Your task to perform on an android device: change timer sound Image 0: 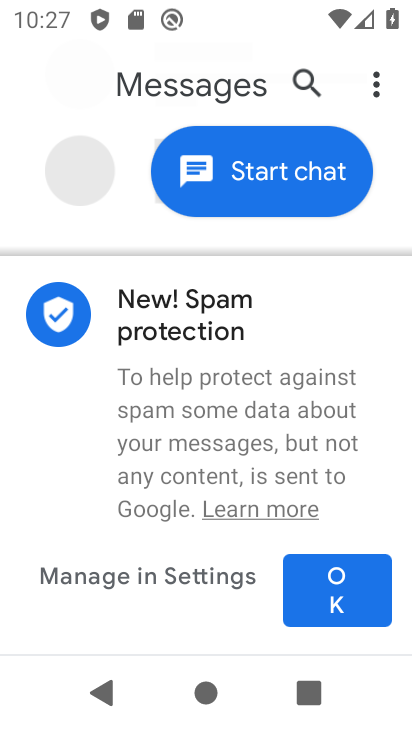
Step 0: press home button
Your task to perform on an android device: change timer sound Image 1: 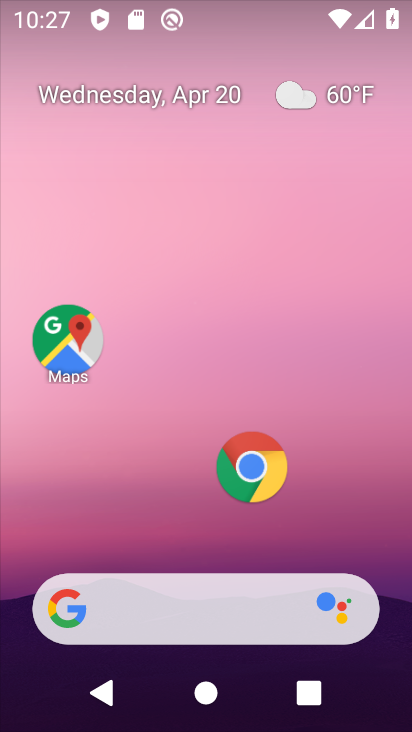
Step 1: drag from (325, 299) to (317, 67)
Your task to perform on an android device: change timer sound Image 2: 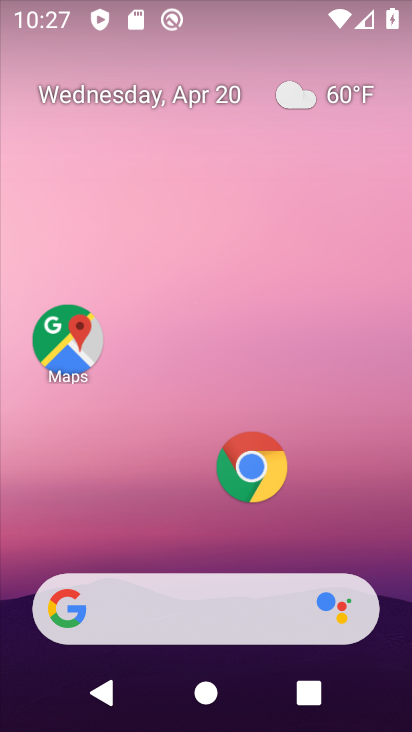
Step 2: drag from (297, 530) to (338, 79)
Your task to perform on an android device: change timer sound Image 3: 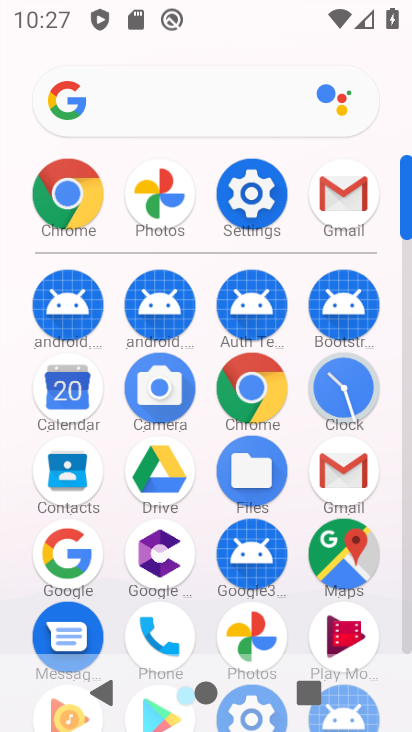
Step 3: click (345, 396)
Your task to perform on an android device: change timer sound Image 4: 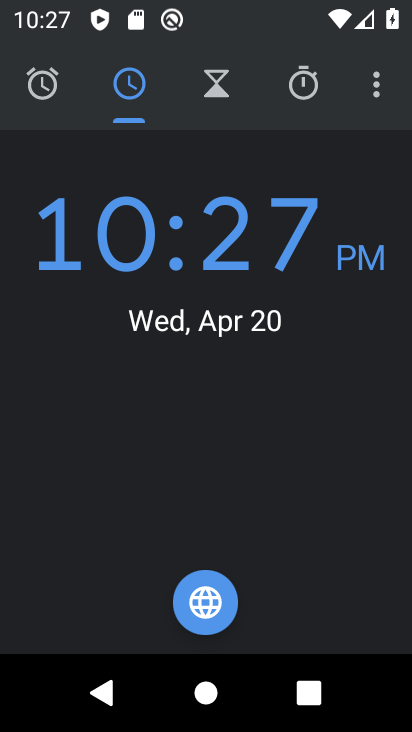
Step 4: click (383, 77)
Your task to perform on an android device: change timer sound Image 5: 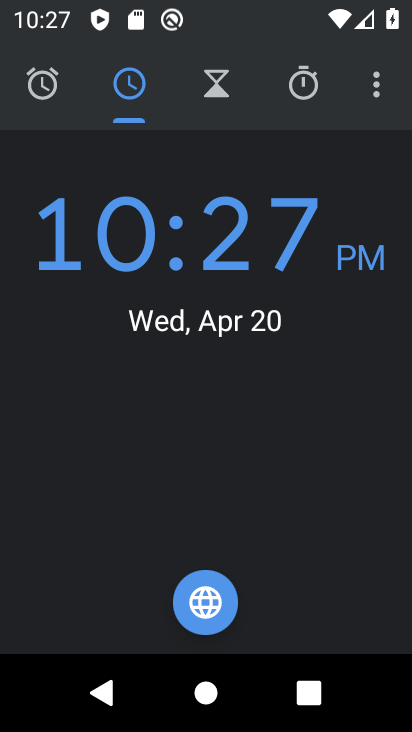
Step 5: click (381, 84)
Your task to perform on an android device: change timer sound Image 6: 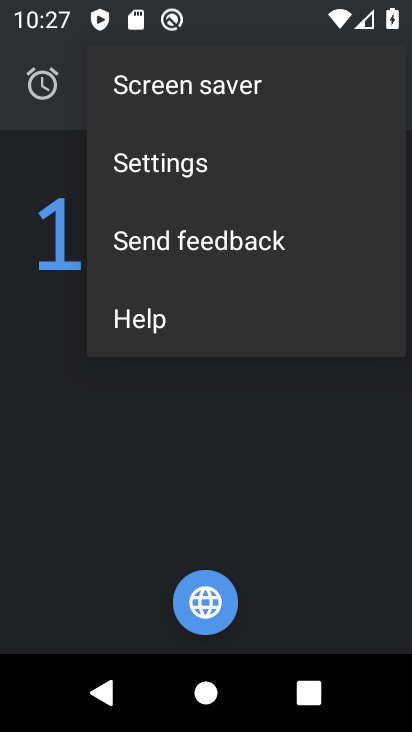
Step 6: click (205, 157)
Your task to perform on an android device: change timer sound Image 7: 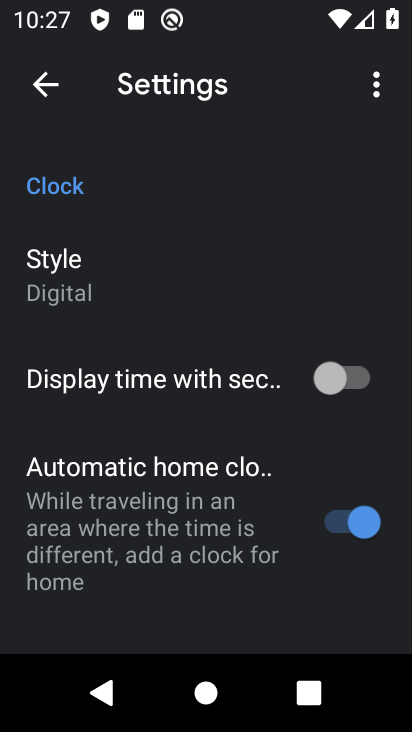
Step 7: drag from (122, 488) to (140, 328)
Your task to perform on an android device: change timer sound Image 8: 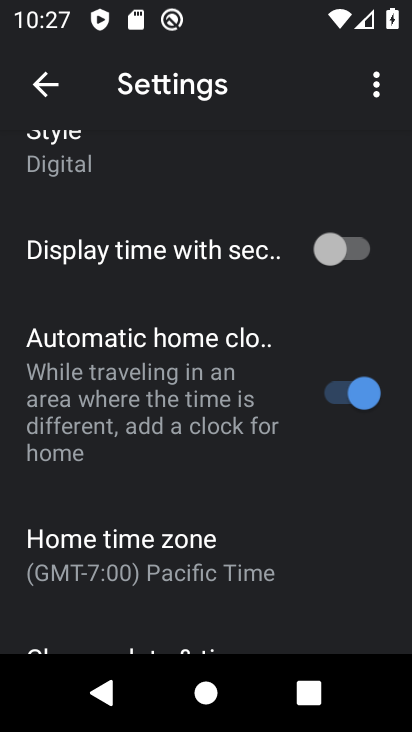
Step 8: drag from (132, 423) to (151, 322)
Your task to perform on an android device: change timer sound Image 9: 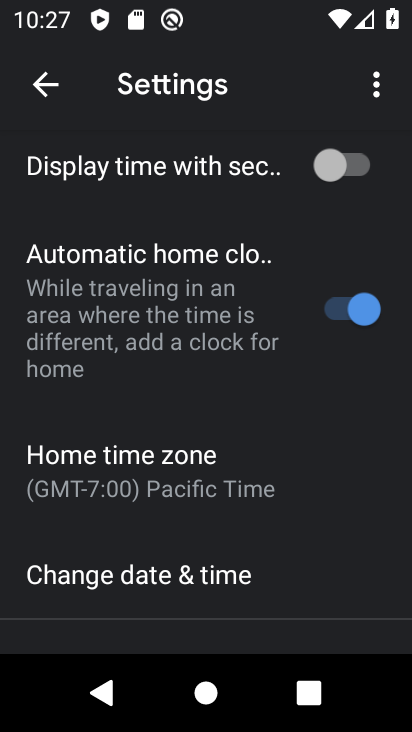
Step 9: drag from (133, 445) to (164, 354)
Your task to perform on an android device: change timer sound Image 10: 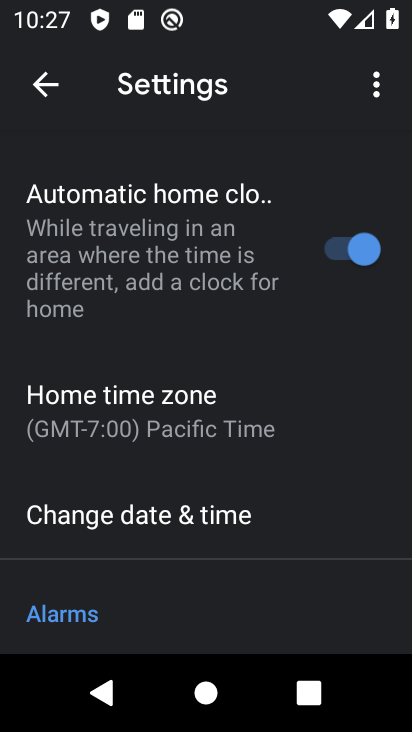
Step 10: drag from (174, 433) to (197, 337)
Your task to perform on an android device: change timer sound Image 11: 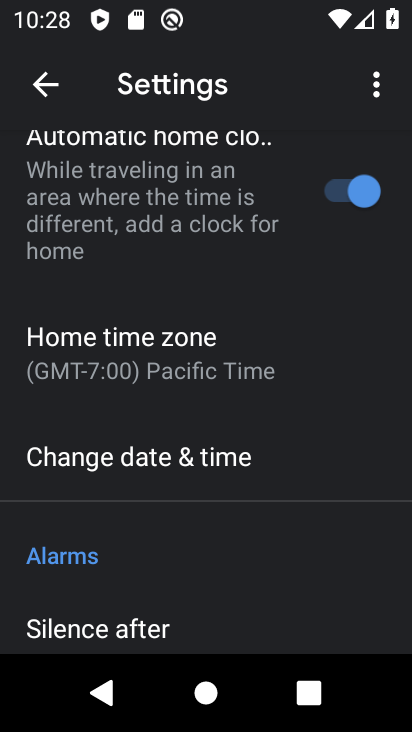
Step 11: drag from (190, 502) to (191, 392)
Your task to perform on an android device: change timer sound Image 12: 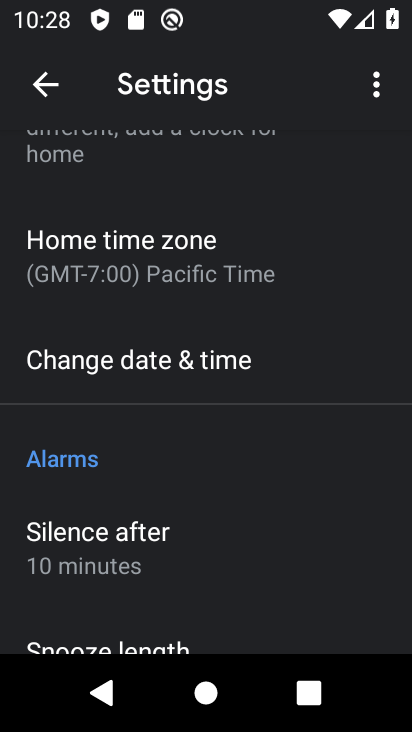
Step 12: drag from (186, 489) to (205, 369)
Your task to perform on an android device: change timer sound Image 13: 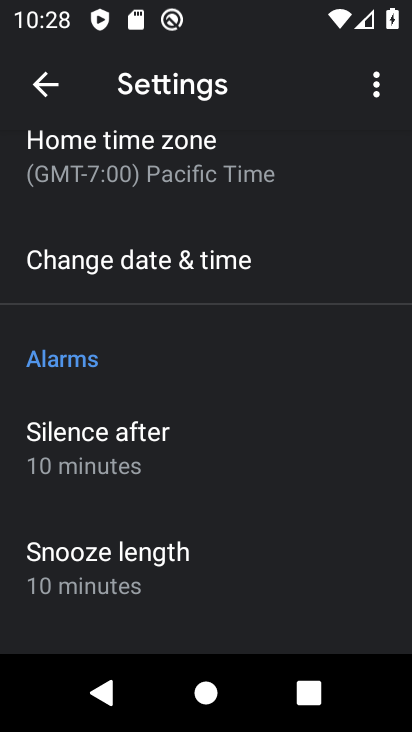
Step 13: drag from (211, 484) to (217, 380)
Your task to perform on an android device: change timer sound Image 14: 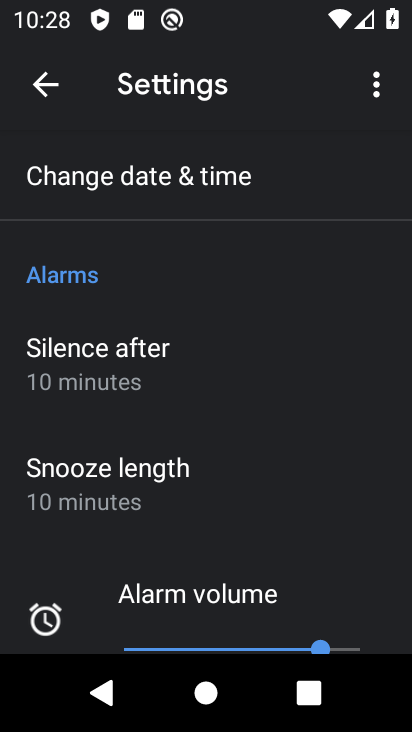
Step 14: drag from (213, 469) to (208, 391)
Your task to perform on an android device: change timer sound Image 15: 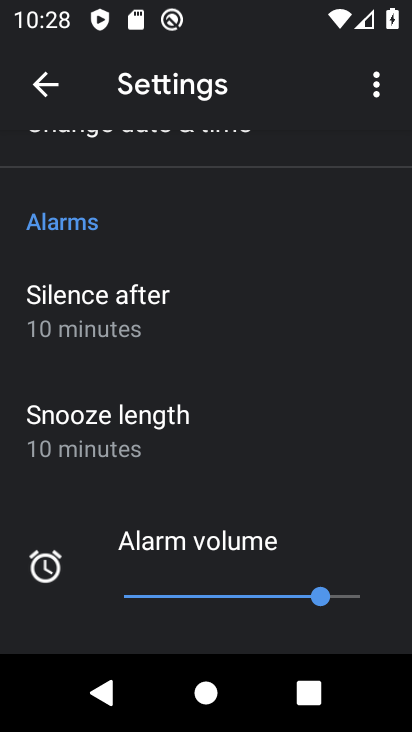
Step 15: drag from (182, 464) to (202, 371)
Your task to perform on an android device: change timer sound Image 16: 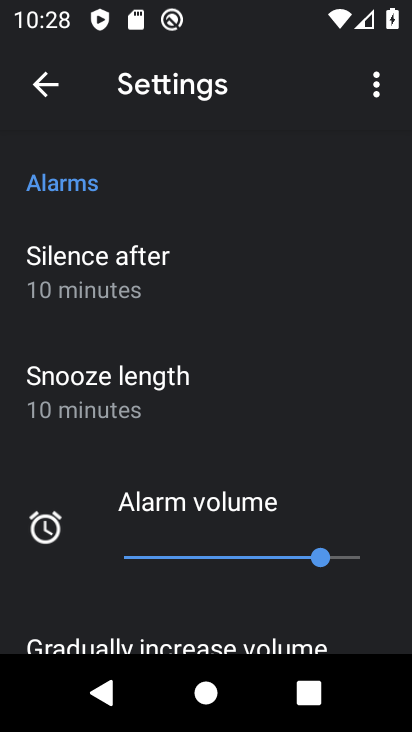
Step 16: drag from (173, 440) to (198, 355)
Your task to perform on an android device: change timer sound Image 17: 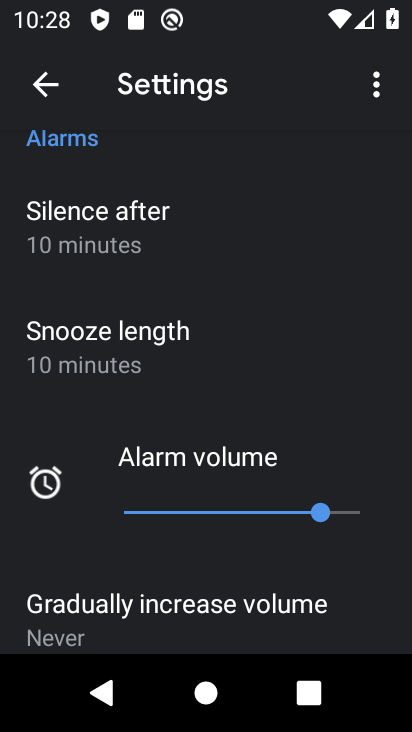
Step 17: drag from (213, 412) to (240, 328)
Your task to perform on an android device: change timer sound Image 18: 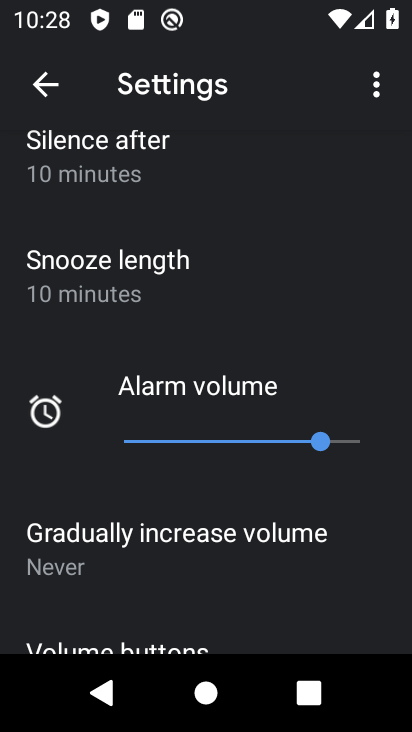
Step 18: drag from (258, 421) to (287, 335)
Your task to perform on an android device: change timer sound Image 19: 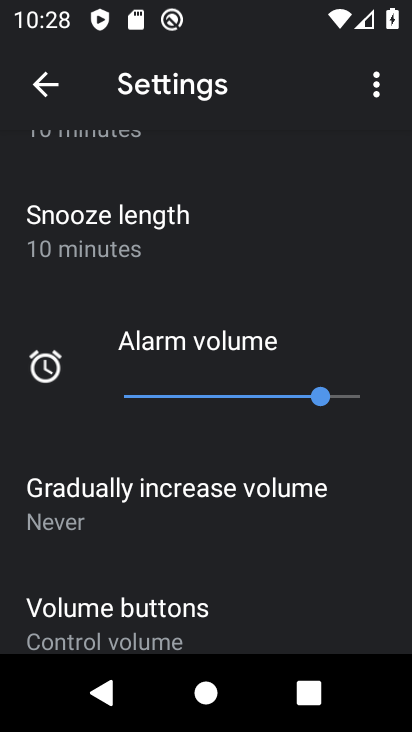
Step 19: drag from (265, 441) to (278, 359)
Your task to perform on an android device: change timer sound Image 20: 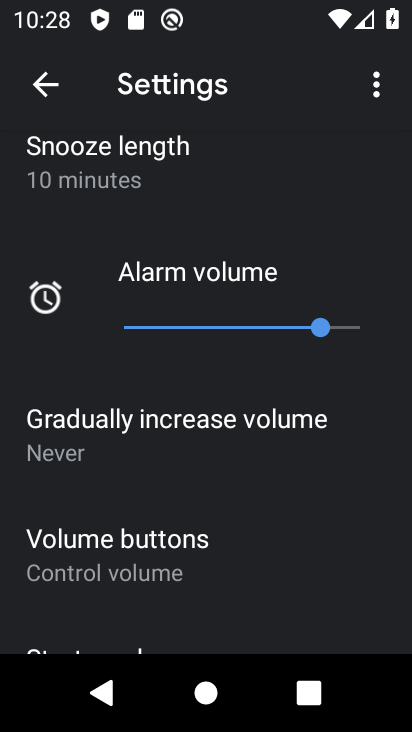
Step 20: drag from (267, 444) to (274, 347)
Your task to perform on an android device: change timer sound Image 21: 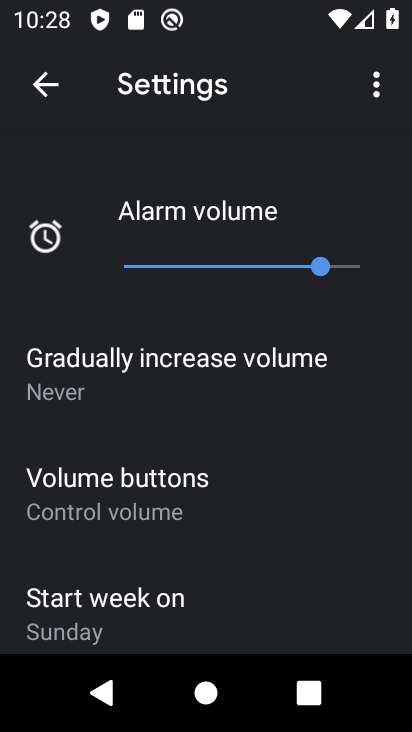
Step 21: drag from (258, 448) to (265, 345)
Your task to perform on an android device: change timer sound Image 22: 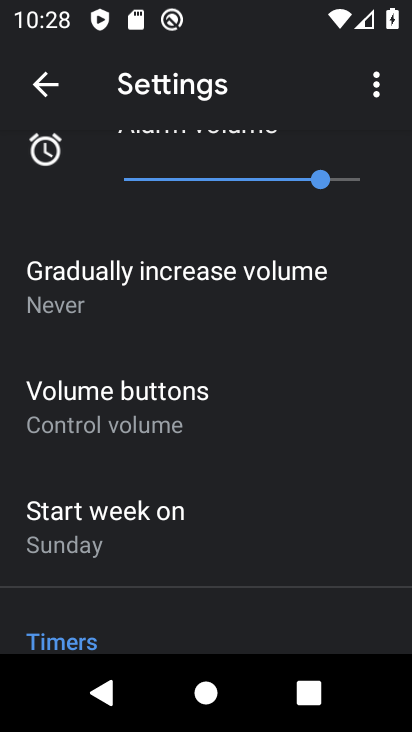
Step 22: drag from (191, 446) to (206, 362)
Your task to perform on an android device: change timer sound Image 23: 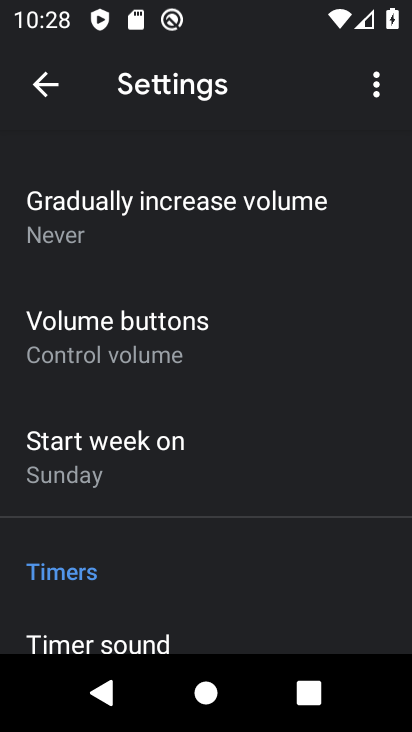
Step 23: drag from (208, 444) to (210, 351)
Your task to perform on an android device: change timer sound Image 24: 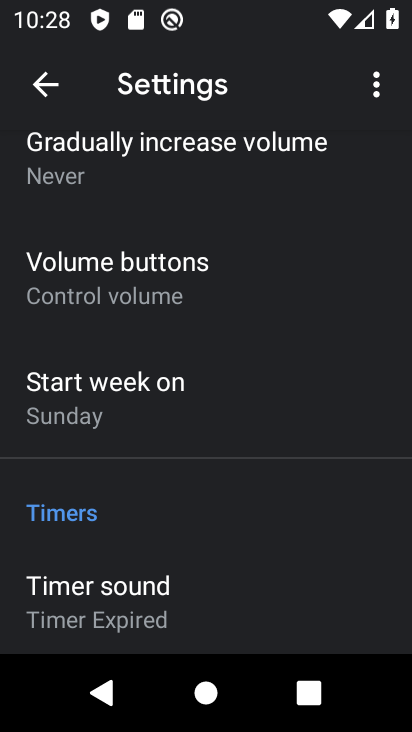
Step 24: drag from (230, 469) to (238, 354)
Your task to perform on an android device: change timer sound Image 25: 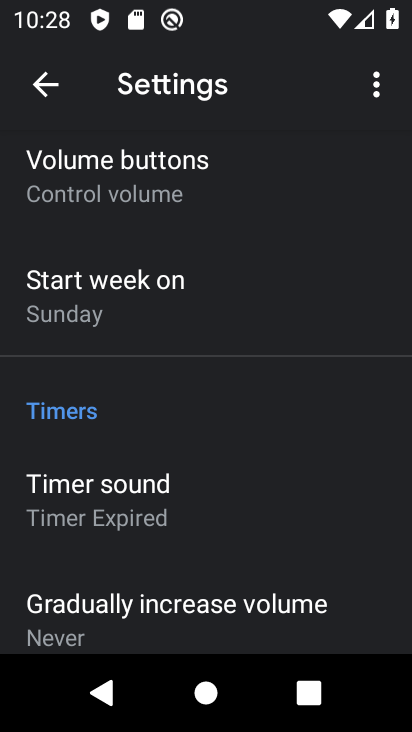
Step 25: click (158, 504)
Your task to perform on an android device: change timer sound Image 26: 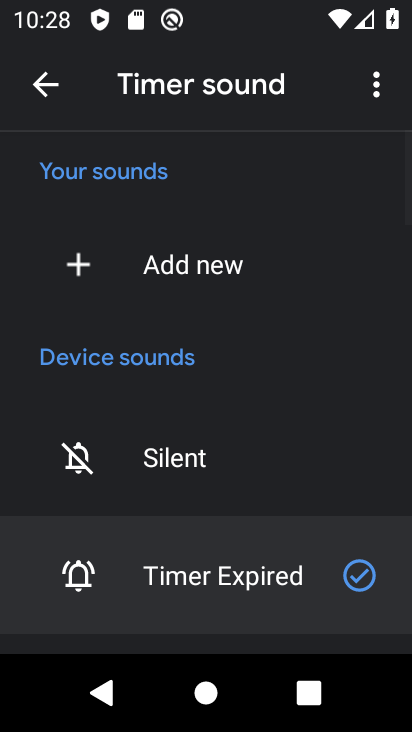
Step 26: drag from (179, 511) to (223, 338)
Your task to perform on an android device: change timer sound Image 27: 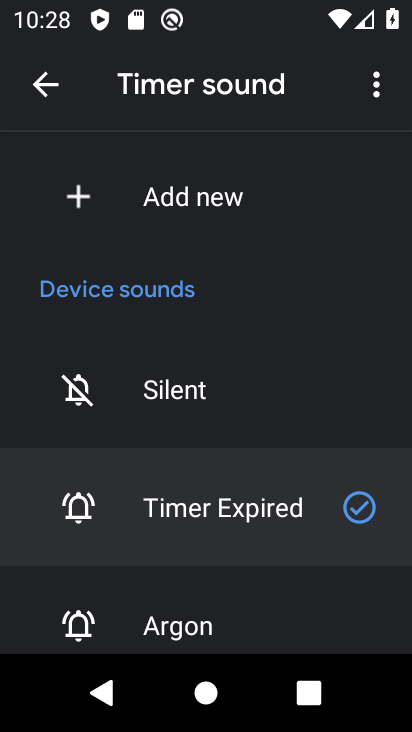
Step 27: click (147, 613)
Your task to perform on an android device: change timer sound Image 28: 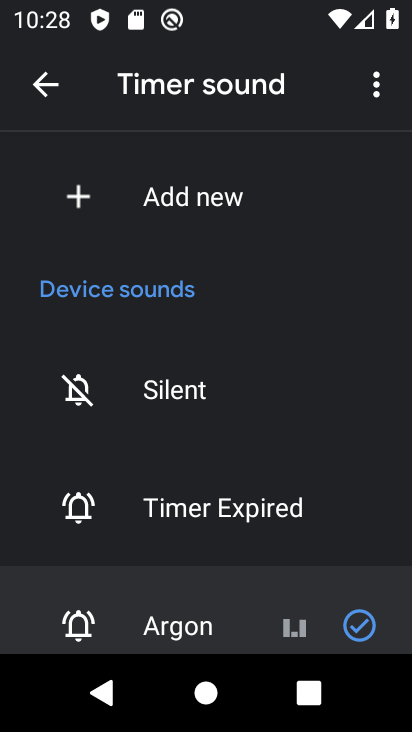
Step 28: task complete